Your task to perform on an android device: change notification settings in the gmail app Image 0: 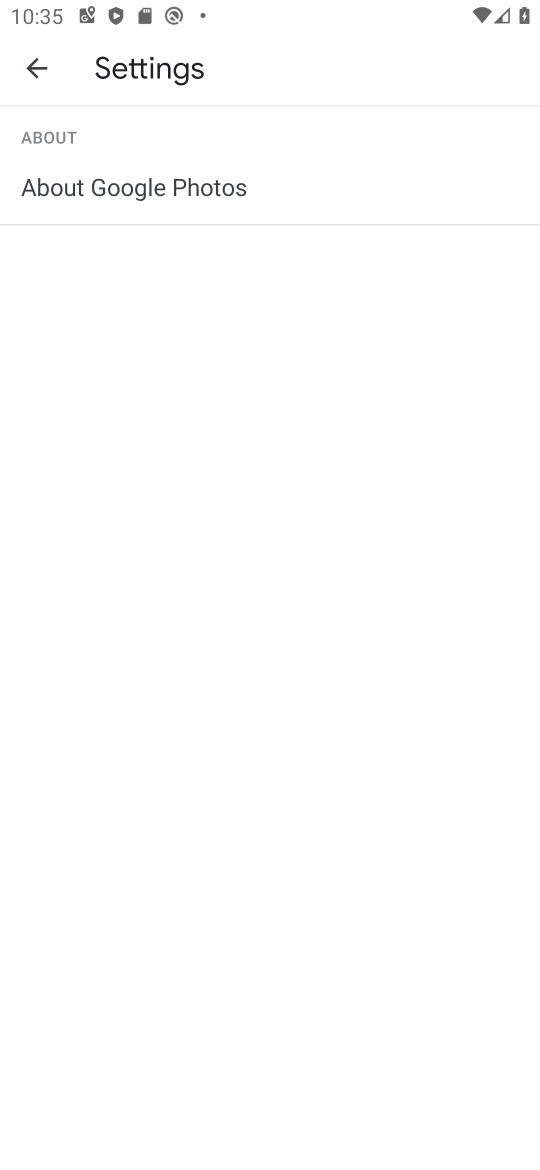
Step 0: press home button
Your task to perform on an android device: change notification settings in the gmail app Image 1: 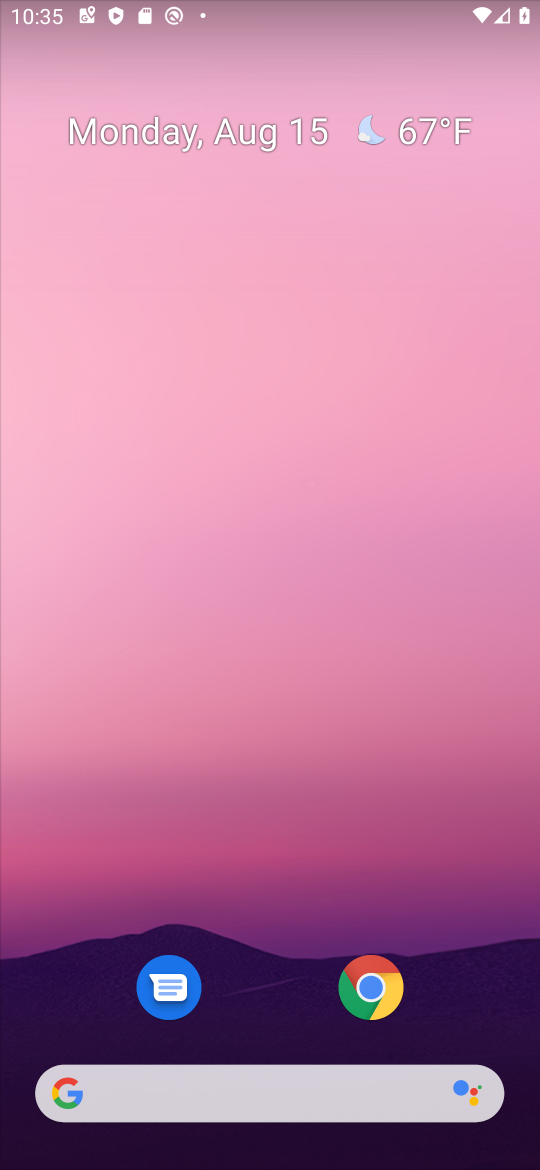
Step 1: drag from (288, 1020) to (77, 44)
Your task to perform on an android device: change notification settings in the gmail app Image 2: 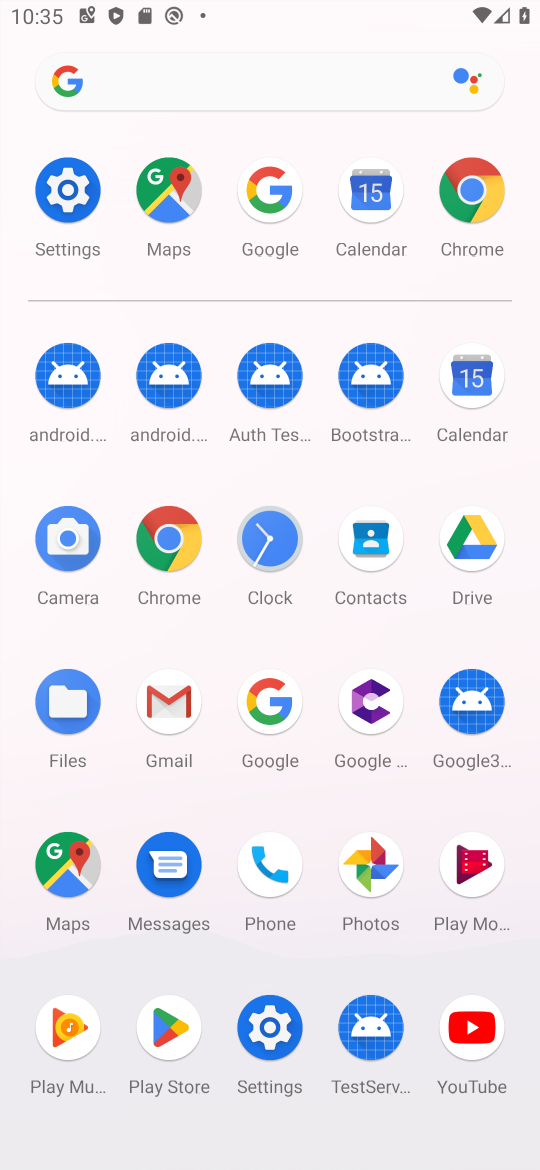
Step 2: click (150, 713)
Your task to perform on an android device: change notification settings in the gmail app Image 3: 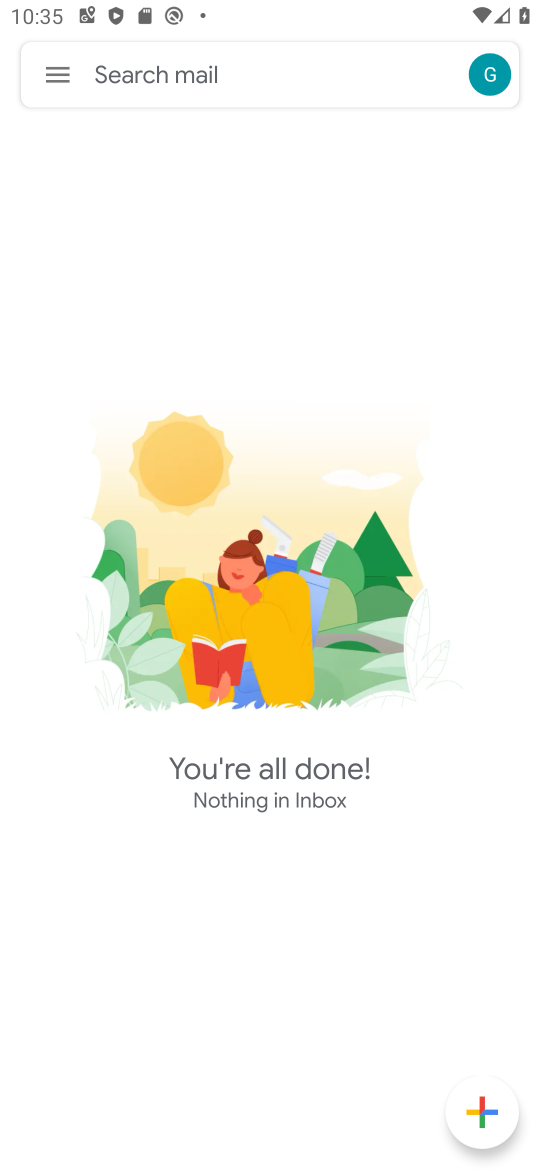
Step 3: click (60, 61)
Your task to perform on an android device: change notification settings in the gmail app Image 4: 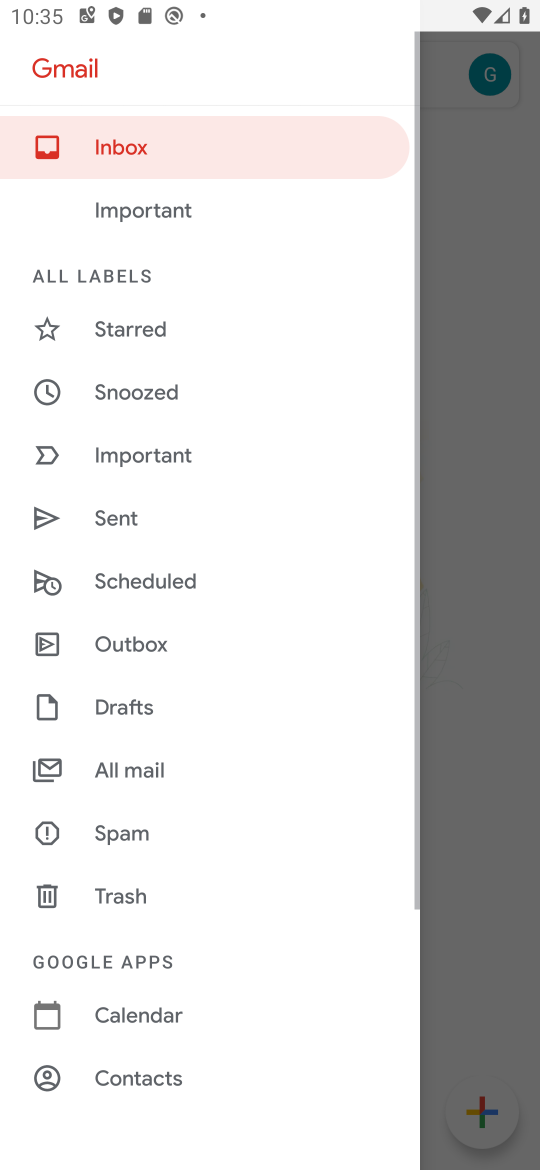
Step 4: drag from (171, 922) to (34, 154)
Your task to perform on an android device: change notification settings in the gmail app Image 5: 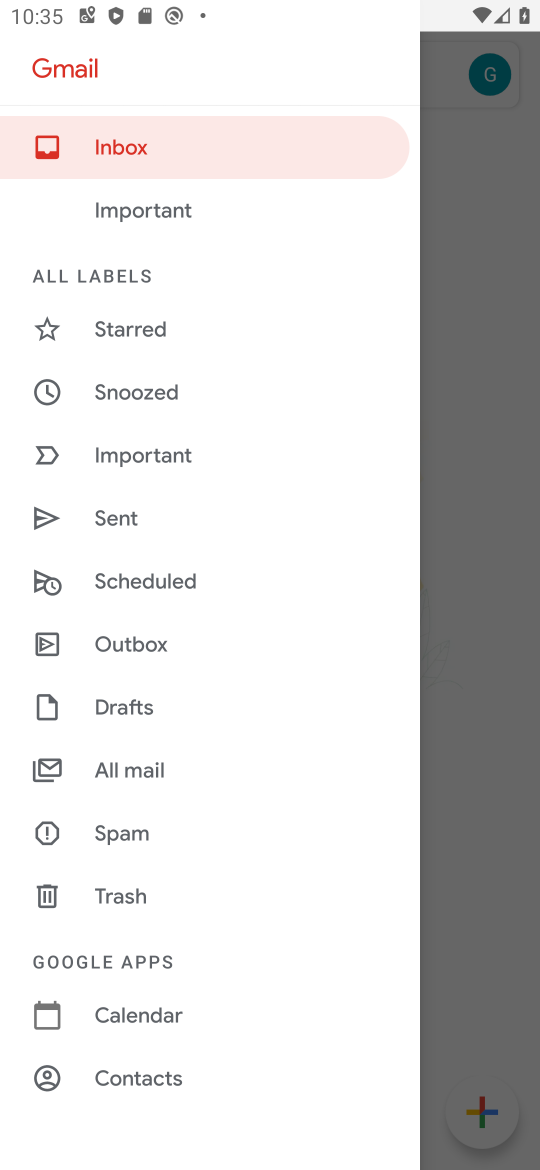
Step 5: drag from (175, 920) to (76, 404)
Your task to perform on an android device: change notification settings in the gmail app Image 6: 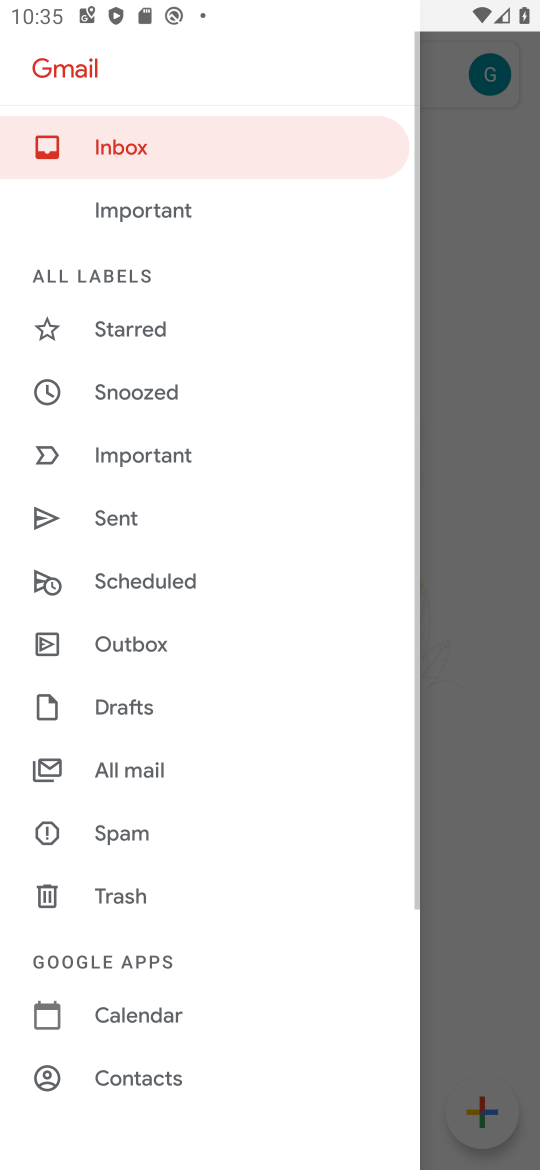
Step 6: drag from (107, 1023) to (44, 306)
Your task to perform on an android device: change notification settings in the gmail app Image 7: 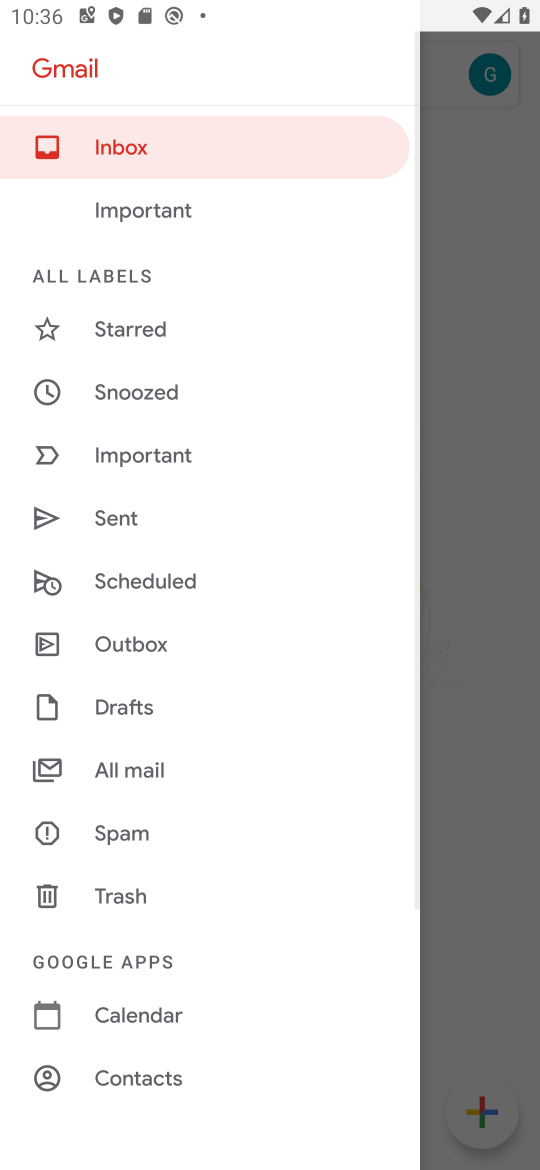
Step 7: drag from (170, 986) to (127, 211)
Your task to perform on an android device: change notification settings in the gmail app Image 8: 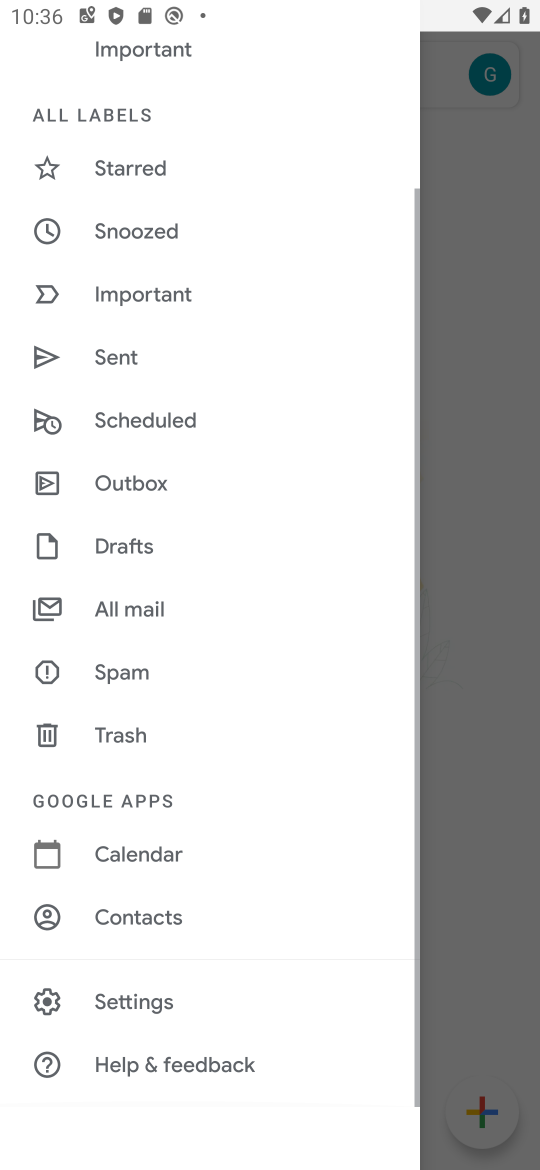
Step 8: click (135, 994)
Your task to perform on an android device: change notification settings in the gmail app Image 9: 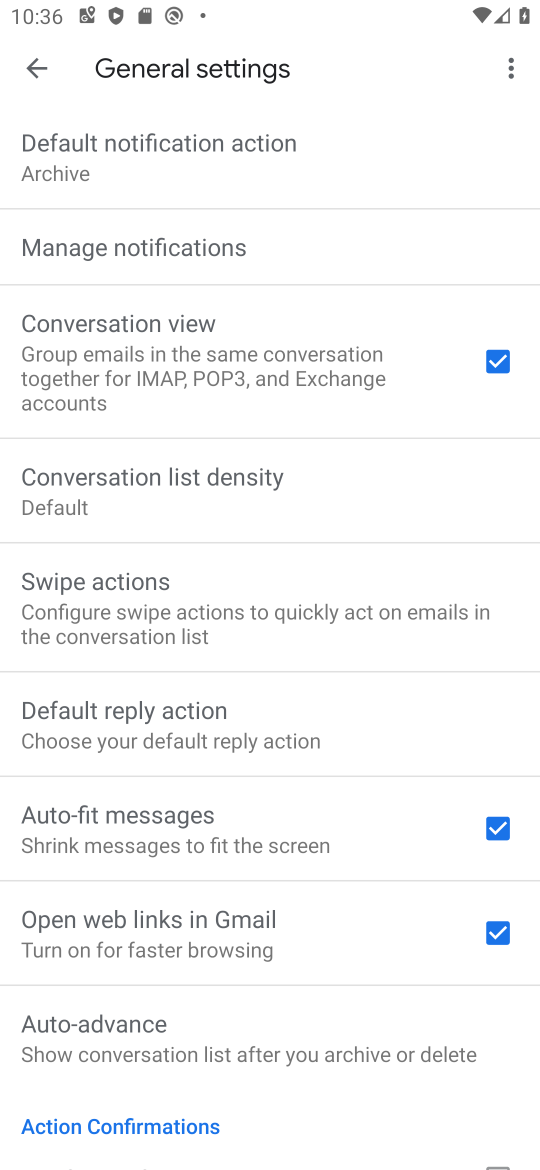
Step 9: click (134, 236)
Your task to perform on an android device: change notification settings in the gmail app Image 10: 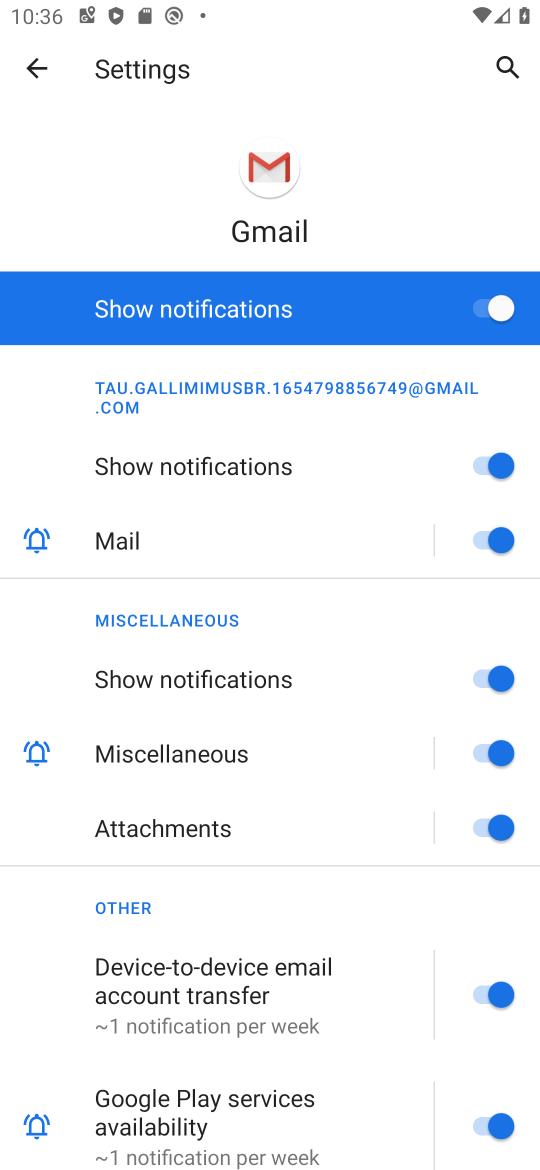
Step 10: task complete